Your task to perform on an android device: turn on javascript in the chrome app Image 0: 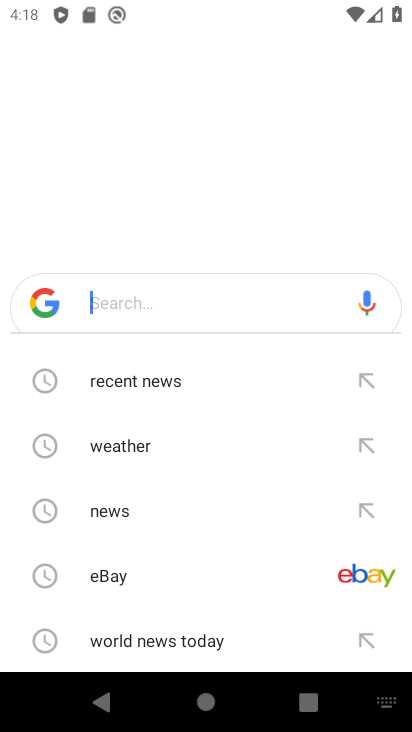
Step 0: press home button
Your task to perform on an android device: turn on javascript in the chrome app Image 1: 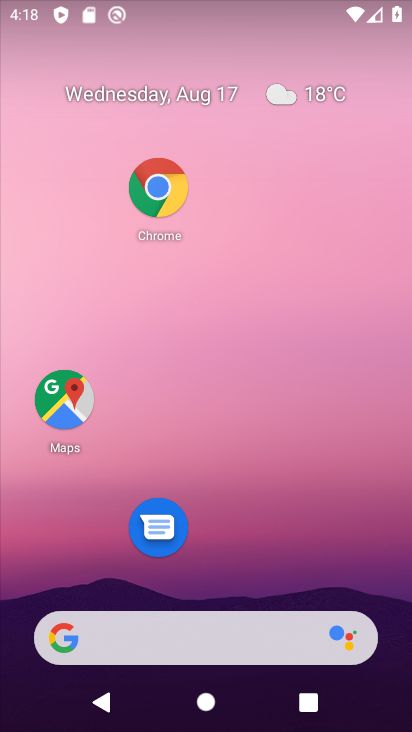
Step 1: click (159, 190)
Your task to perform on an android device: turn on javascript in the chrome app Image 2: 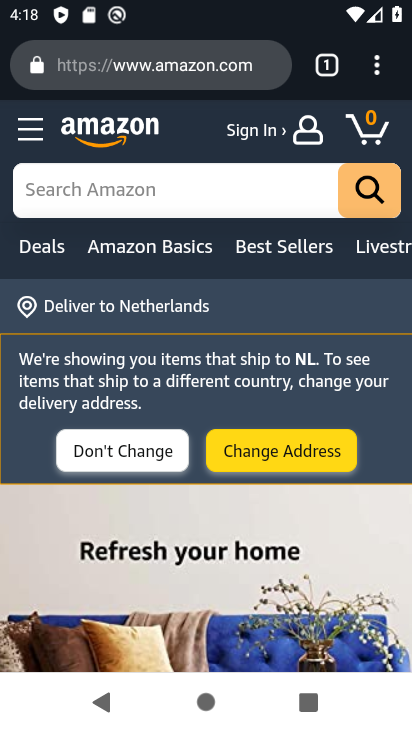
Step 2: click (395, 61)
Your task to perform on an android device: turn on javascript in the chrome app Image 3: 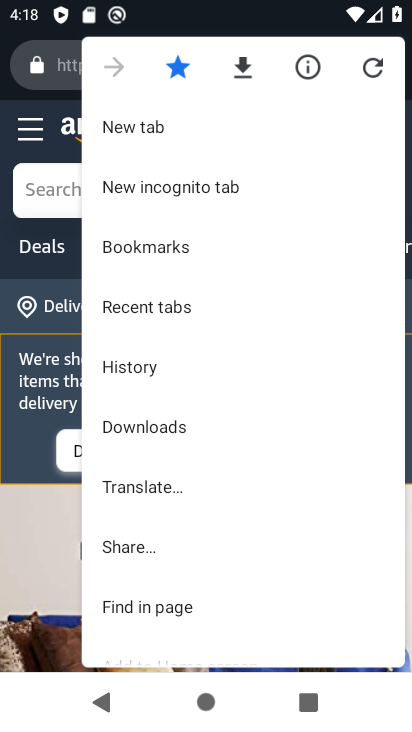
Step 3: drag from (175, 631) to (165, 188)
Your task to perform on an android device: turn on javascript in the chrome app Image 4: 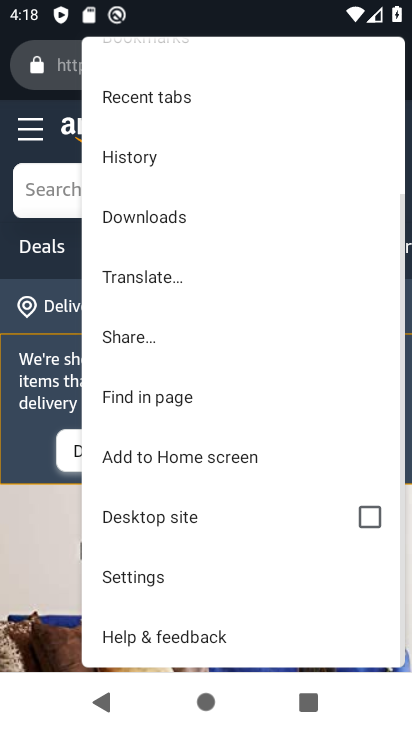
Step 4: click (175, 575)
Your task to perform on an android device: turn on javascript in the chrome app Image 5: 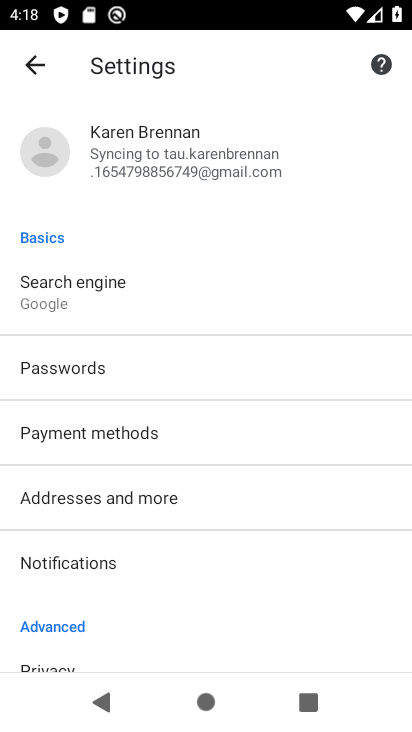
Step 5: drag from (126, 638) to (132, 245)
Your task to perform on an android device: turn on javascript in the chrome app Image 6: 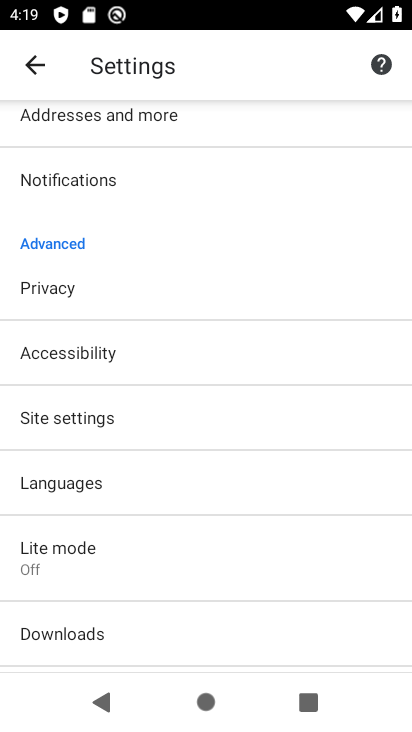
Step 6: click (123, 412)
Your task to perform on an android device: turn on javascript in the chrome app Image 7: 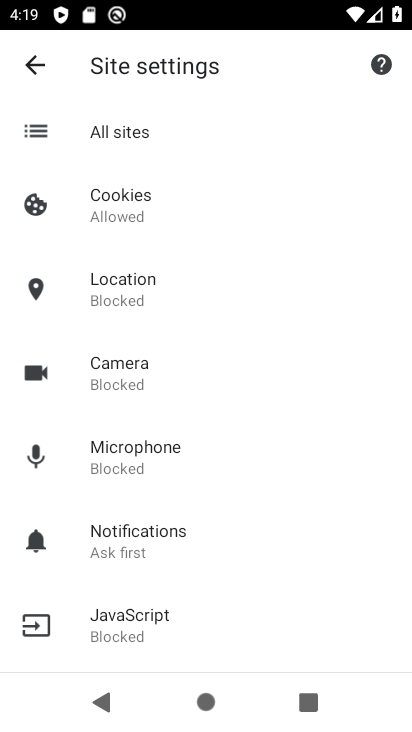
Step 7: click (205, 637)
Your task to perform on an android device: turn on javascript in the chrome app Image 8: 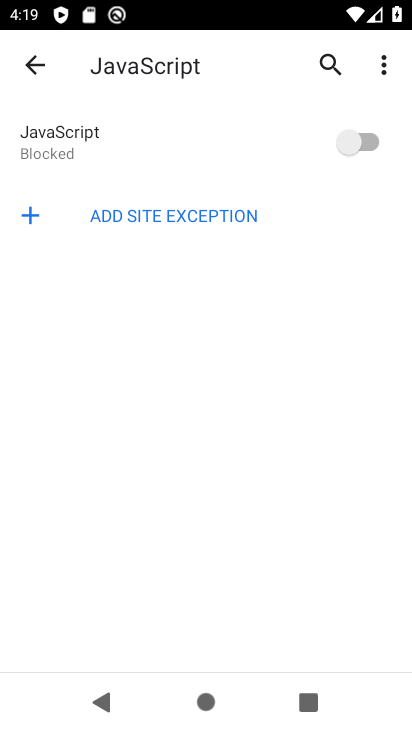
Step 8: click (361, 131)
Your task to perform on an android device: turn on javascript in the chrome app Image 9: 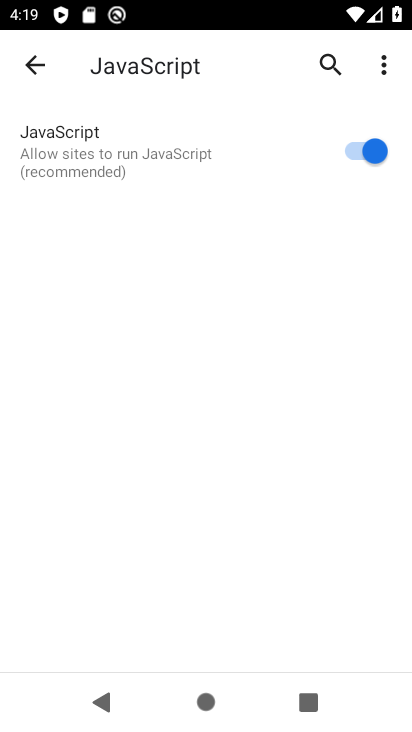
Step 9: task complete